Your task to perform on an android device: search for starred emails in the gmail app Image 0: 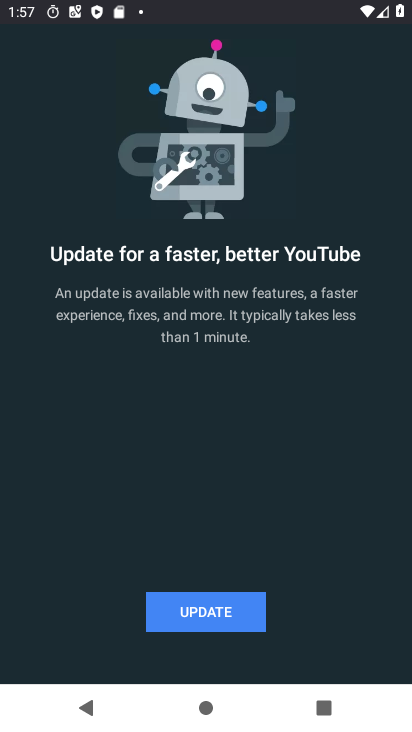
Step 0: press home button
Your task to perform on an android device: search for starred emails in the gmail app Image 1: 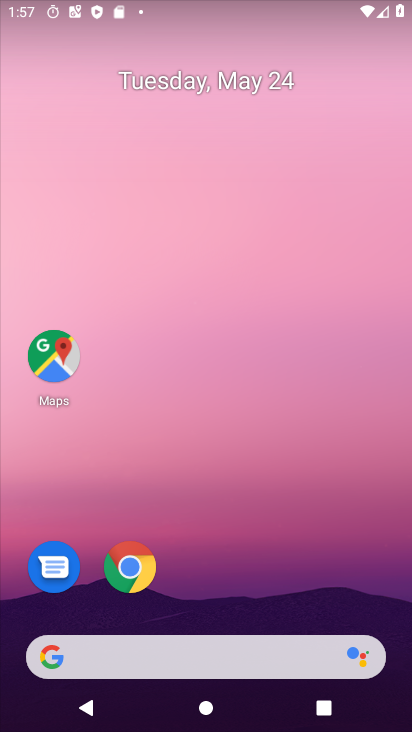
Step 1: drag from (275, 612) to (340, 3)
Your task to perform on an android device: search for starred emails in the gmail app Image 2: 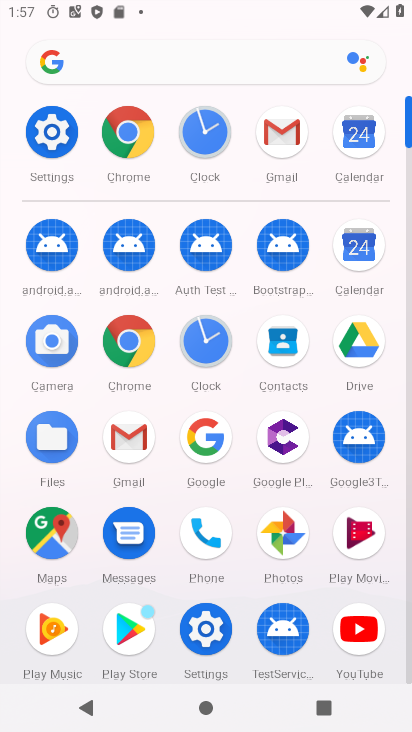
Step 2: click (136, 450)
Your task to perform on an android device: search for starred emails in the gmail app Image 3: 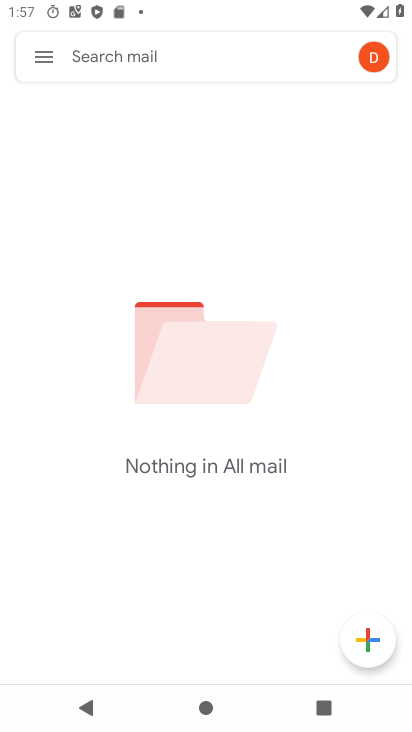
Step 3: click (53, 62)
Your task to perform on an android device: search for starred emails in the gmail app Image 4: 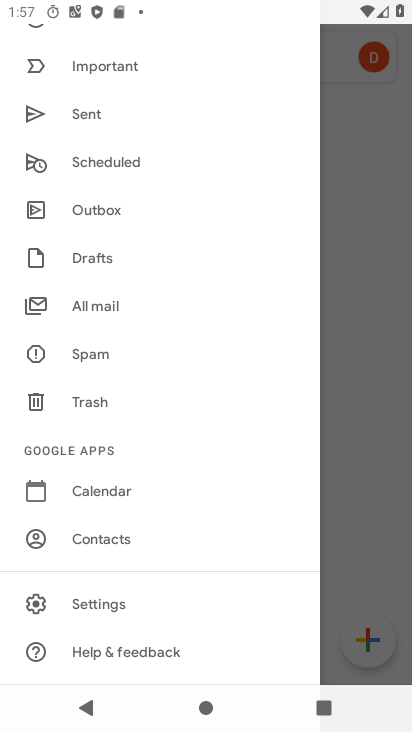
Step 4: drag from (119, 376) to (101, 565)
Your task to perform on an android device: search for starred emails in the gmail app Image 5: 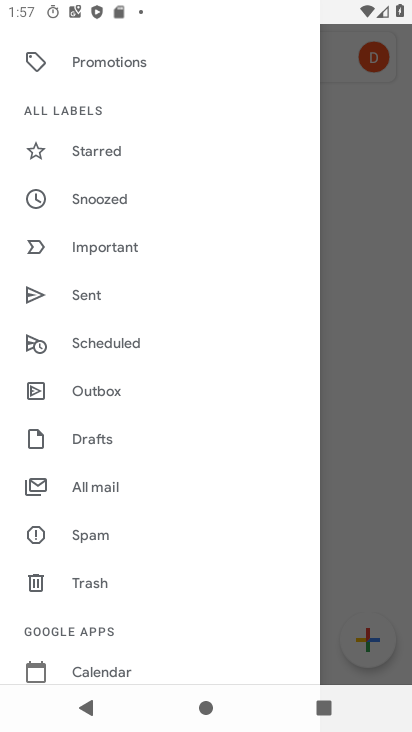
Step 5: click (112, 155)
Your task to perform on an android device: search for starred emails in the gmail app Image 6: 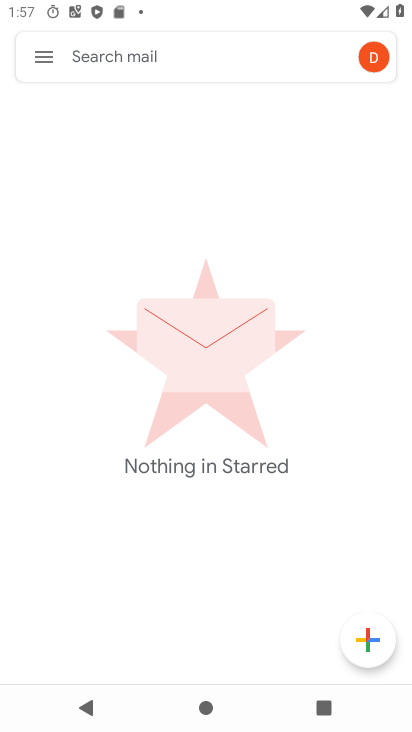
Step 6: task complete